Your task to perform on an android device: check the backup settings in the google photos Image 0: 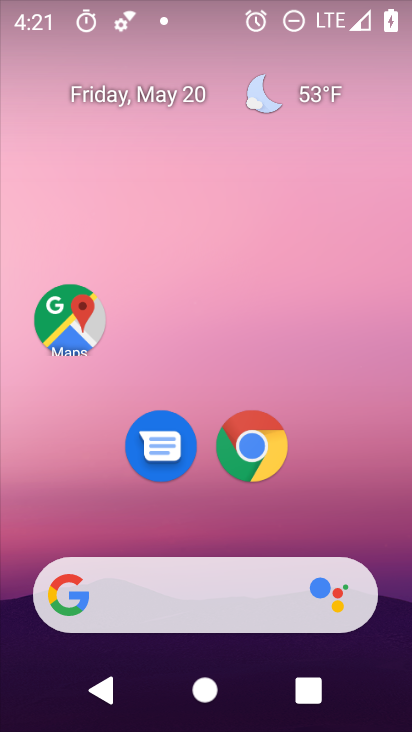
Step 0: drag from (351, 521) to (412, 133)
Your task to perform on an android device: check the backup settings in the google photos Image 1: 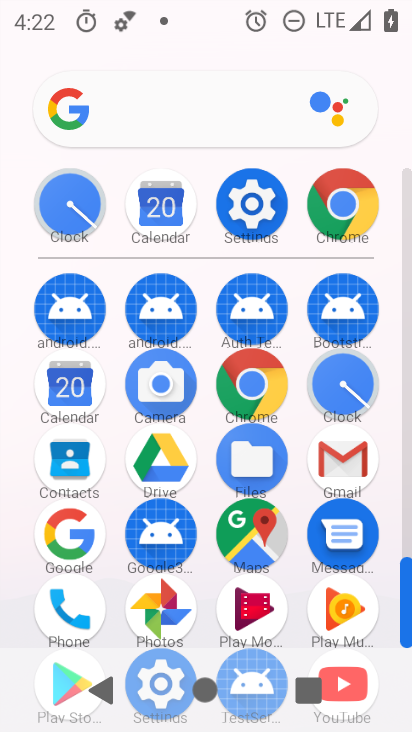
Step 1: click (160, 620)
Your task to perform on an android device: check the backup settings in the google photos Image 2: 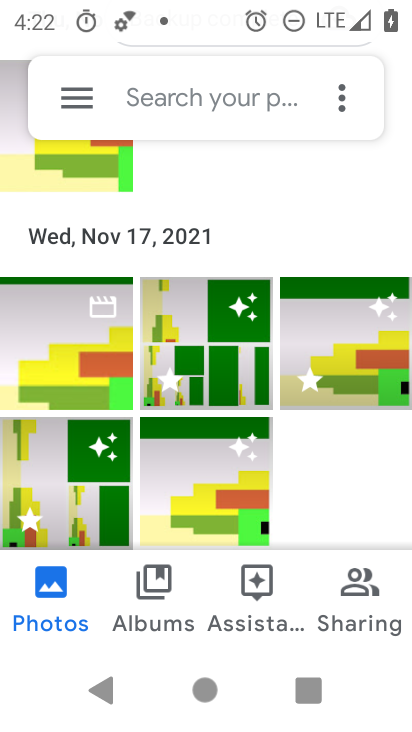
Step 2: drag from (257, 171) to (297, 623)
Your task to perform on an android device: check the backup settings in the google photos Image 3: 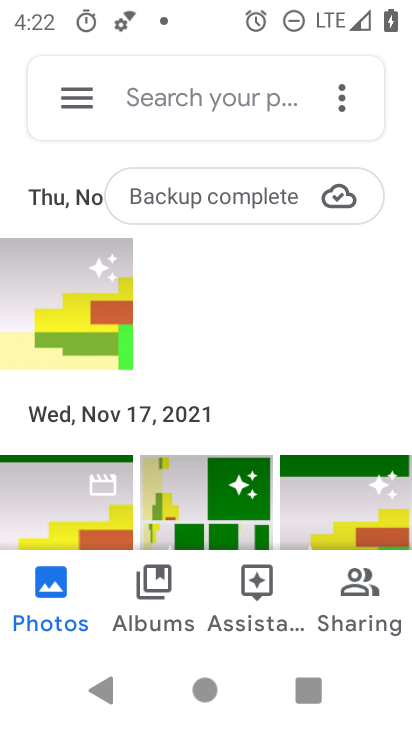
Step 3: click (82, 100)
Your task to perform on an android device: check the backup settings in the google photos Image 4: 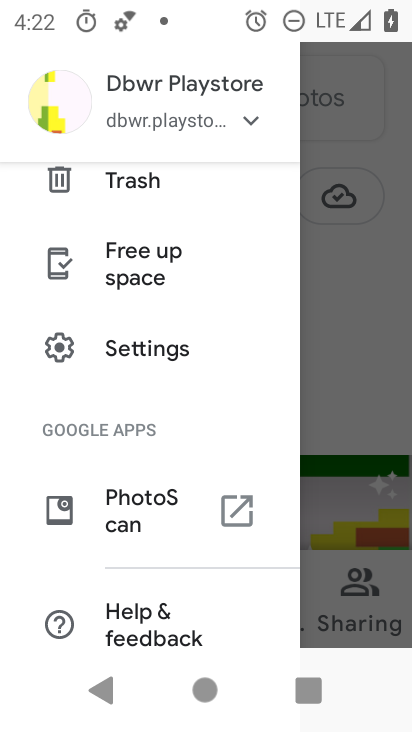
Step 4: click (116, 363)
Your task to perform on an android device: check the backup settings in the google photos Image 5: 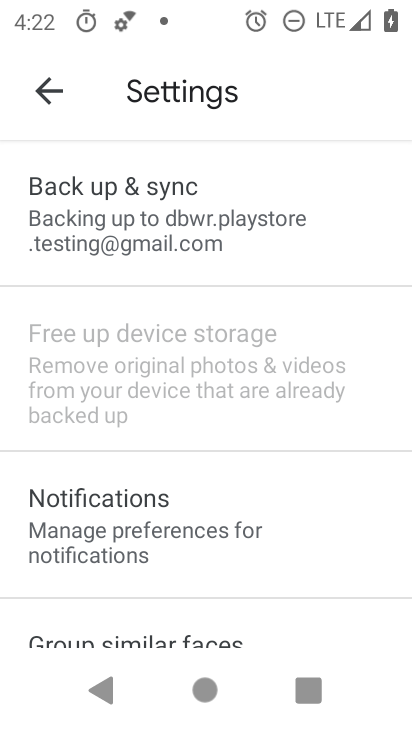
Step 5: click (153, 204)
Your task to perform on an android device: check the backup settings in the google photos Image 6: 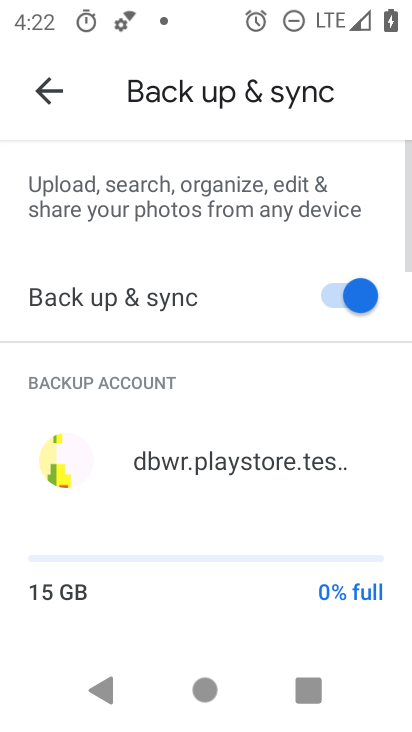
Step 6: task complete